Your task to perform on an android device: Turn on the flashlight Image 0: 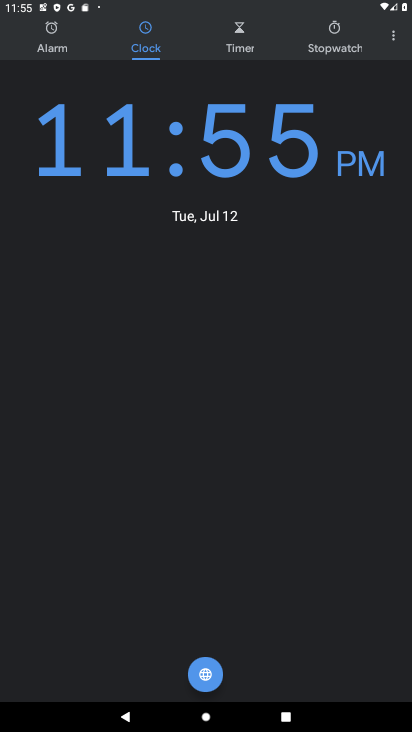
Step 0: press home button
Your task to perform on an android device: Turn on the flashlight Image 1: 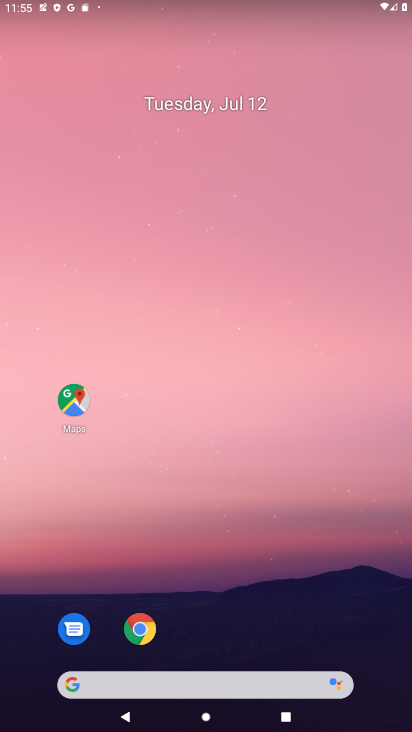
Step 1: drag from (246, 419) to (161, 17)
Your task to perform on an android device: Turn on the flashlight Image 2: 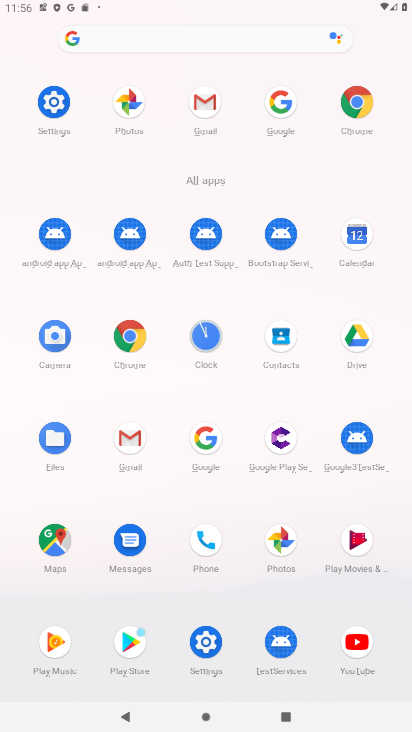
Step 2: click (51, 97)
Your task to perform on an android device: Turn on the flashlight Image 3: 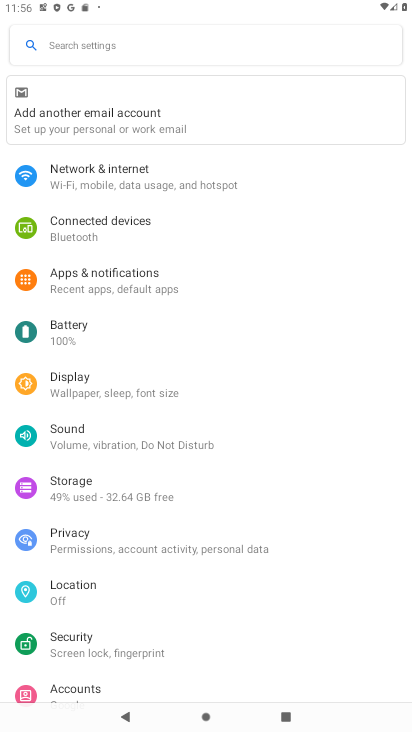
Step 3: click (110, 391)
Your task to perform on an android device: Turn on the flashlight Image 4: 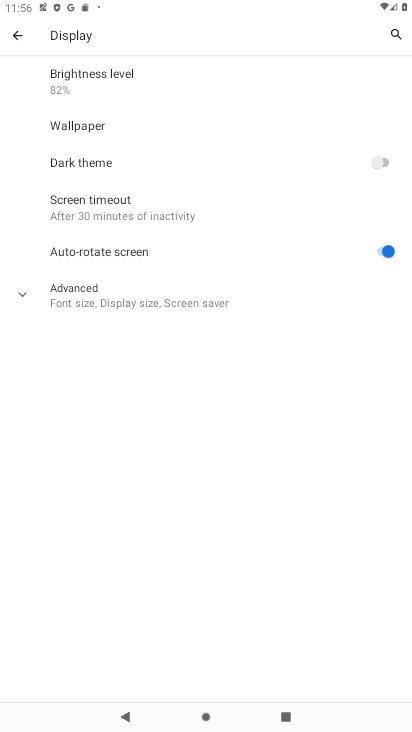
Step 4: task complete